Your task to perform on an android device: find photos in the google photos app Image 0: 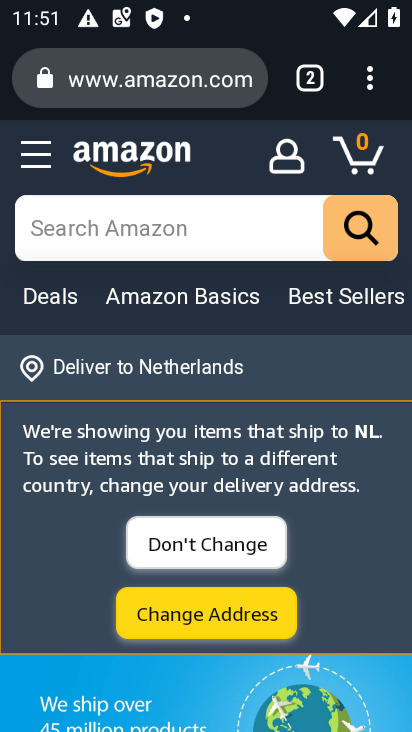
Step 0: press home button
Your task to perform on an android device: find photos in the google photos app Image 1: 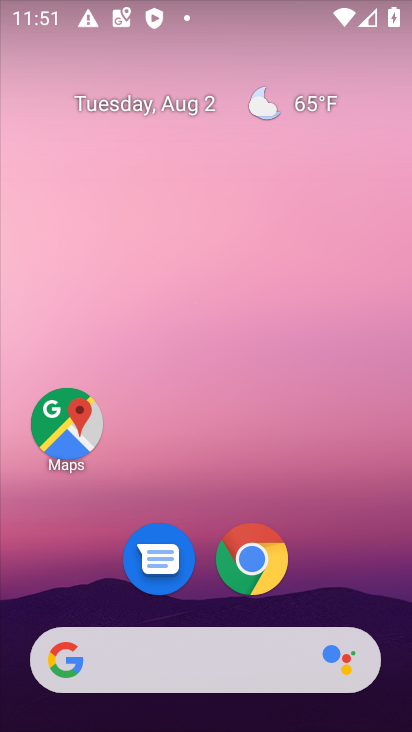
Step 1: drag from (208, 565) to (208, 219)
Your task to perform on an android device: find photos in the google photos app Image 2: 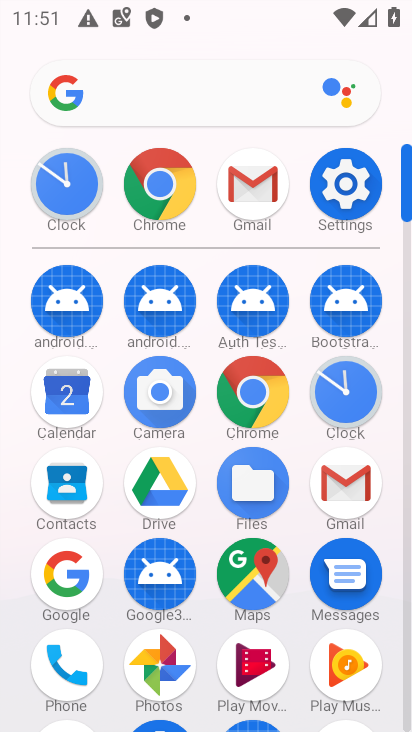
Step 2: click (153, 658)
Your task to perform on an android device: find photos in the google photos app Image 3: 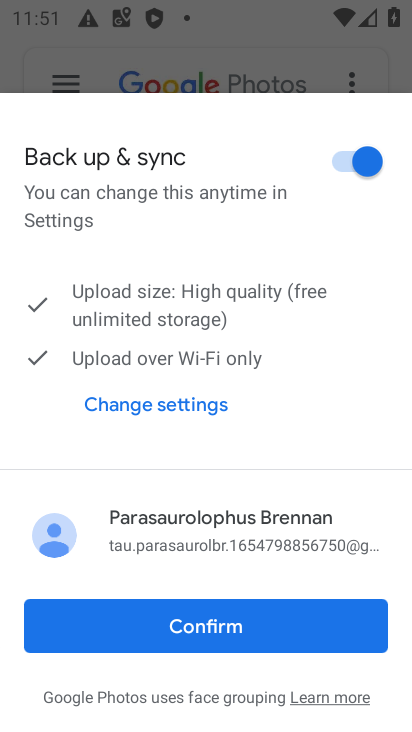
Step 3: click (197, 637)
Your task to perform on an android device: find photos in the google photos app Image 4: 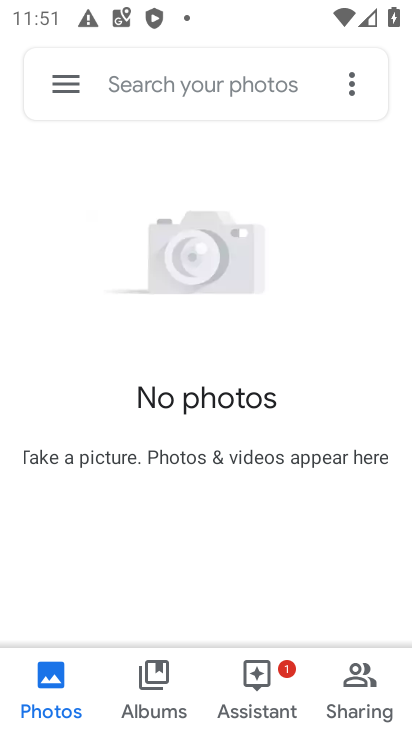
Step 4: task complete